Your task to perform on an android device: add a contact Image 0: 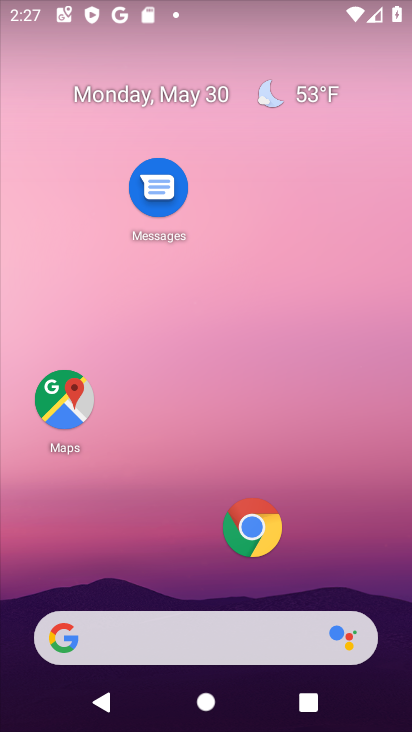
Step 0: drag from (237, 181) to (252, 133)
Your task to perform on an android device: add a contact Image 1: 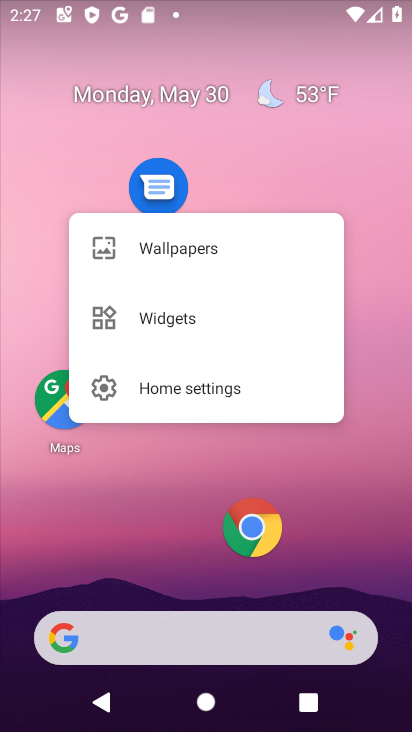
Step 1: click (163, 500)
Your task to perform on an android device: add a contact Image 2: 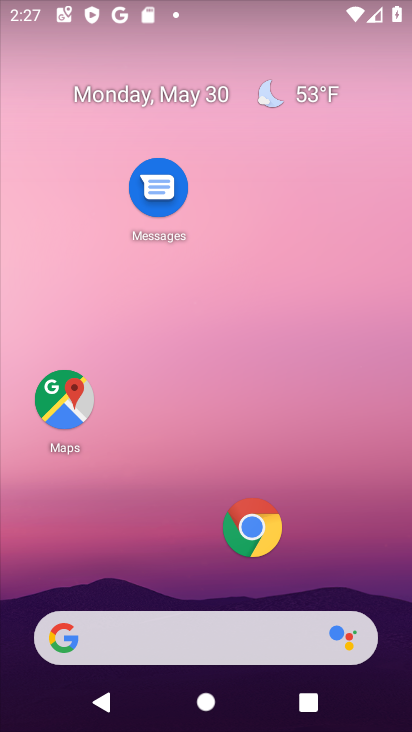
Step 2: drag from (161, 537) to (342, 145)
Your task to perform on an android device: add a contact Image 3: 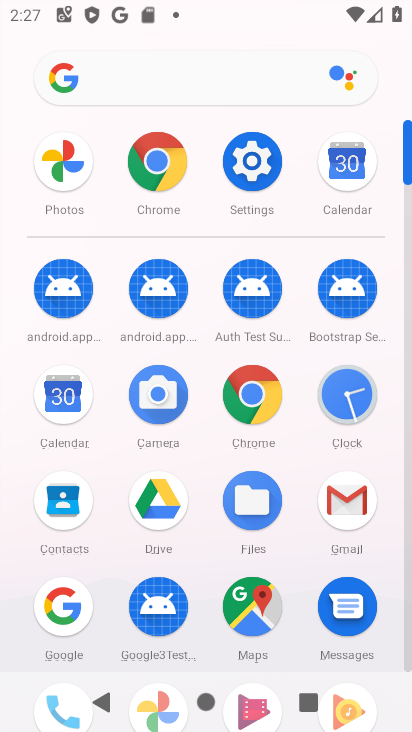
Step 3: click (72, 508)
Your task to perform on an android device: add a contact Image 4: 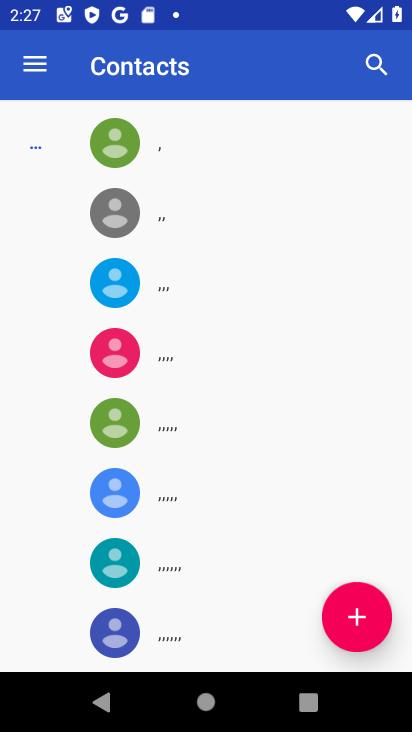
Step 4: click (348, 623)
Your task to perform on an android device: add a contact Image 5: 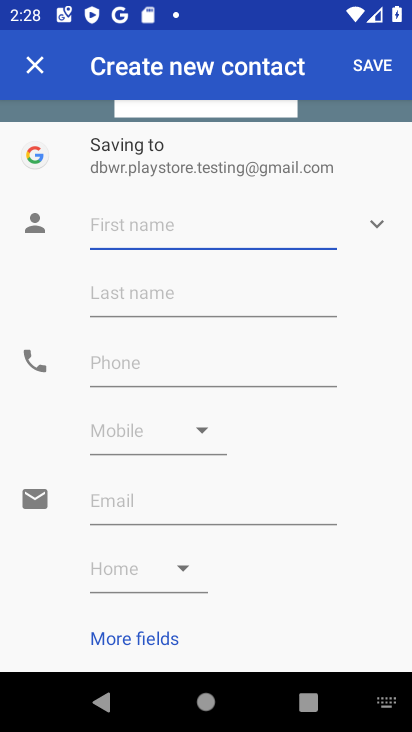
Step 5: type "grhgdutf"
Your task to perform on an android device: add a contact Image 6: 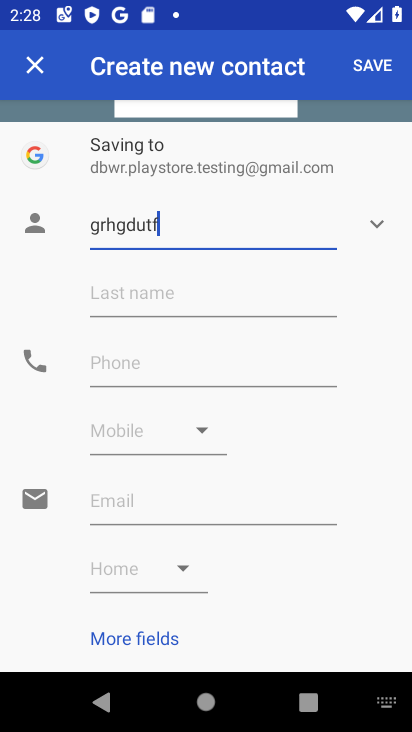
Step 6: type ""
Your task to perform on an android device: add a contact Image 7: 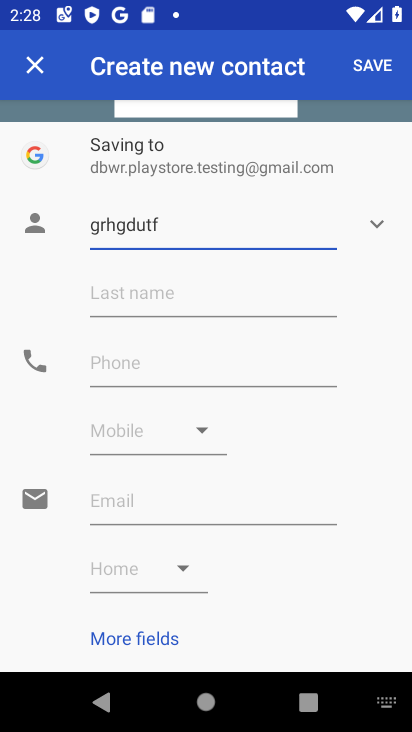
Step 7: click (384, 74)
Your task to perform on an android device: add a contact Image 8: 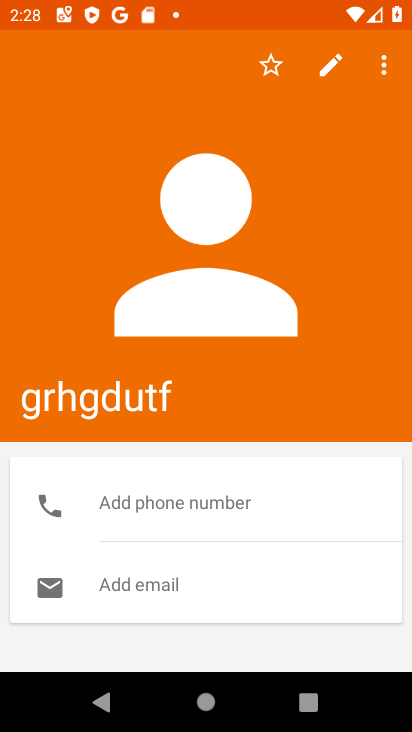
Step 8: task complete